Your task to perform on an android device: turn off location history Image 0: 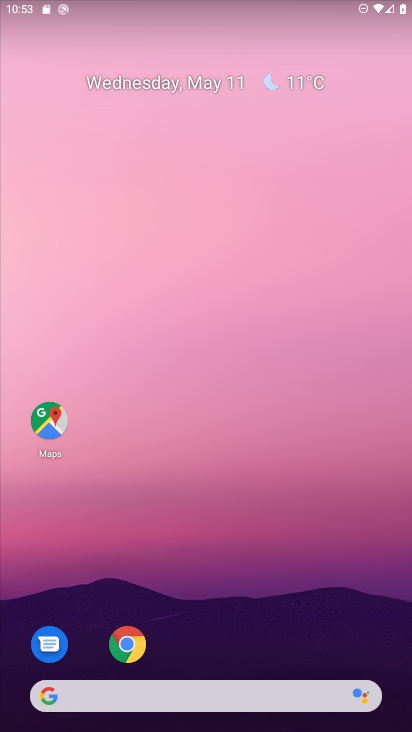
Step 0: click (51, 423)
Your task to perform on an android device: turn off location history Image 1: 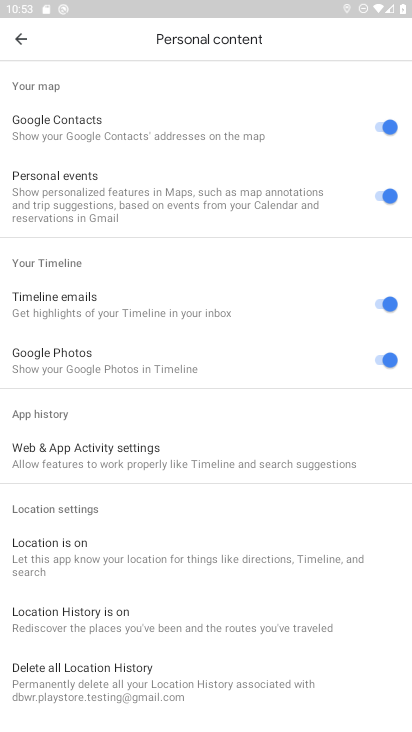
Step 1: click (84, 617)
Your task to perform on an android device: turn off location history Image 2: 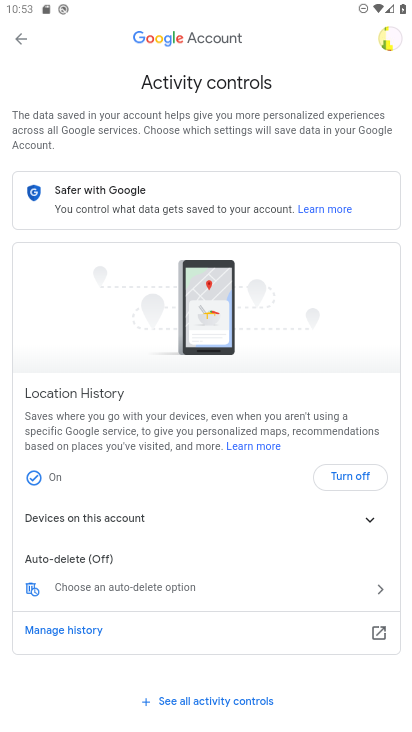
Step 2: click (361, 468)
Your task to perform on an android device: turn off location history Image 3: 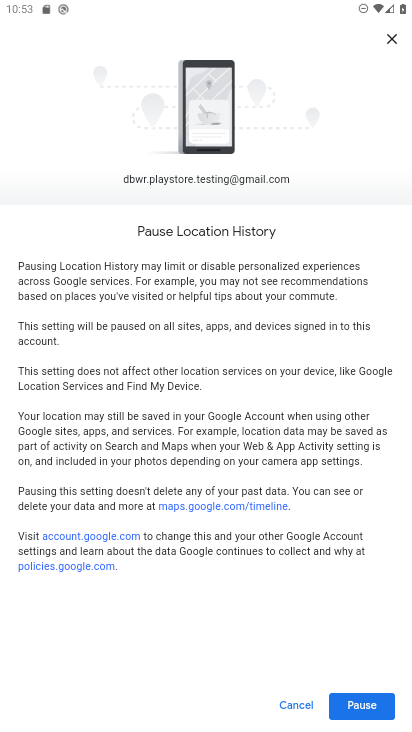
Step 3: click (362, 717)
Your task to perform on an android device: turn off location history Image 4: 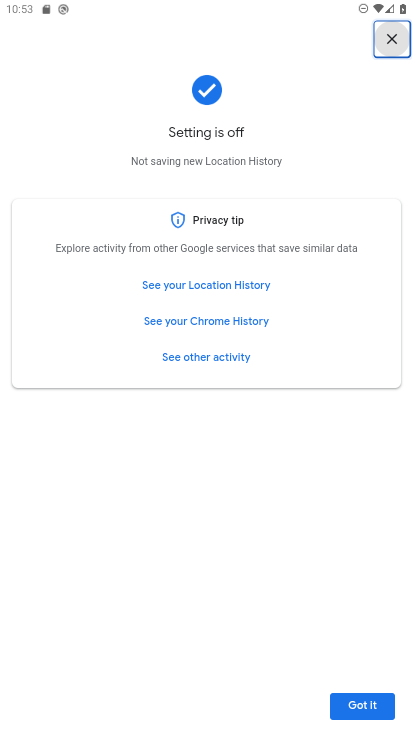
Step 4: click (360, 700)
Your task to perform on an android device: turn off location history Image 5: 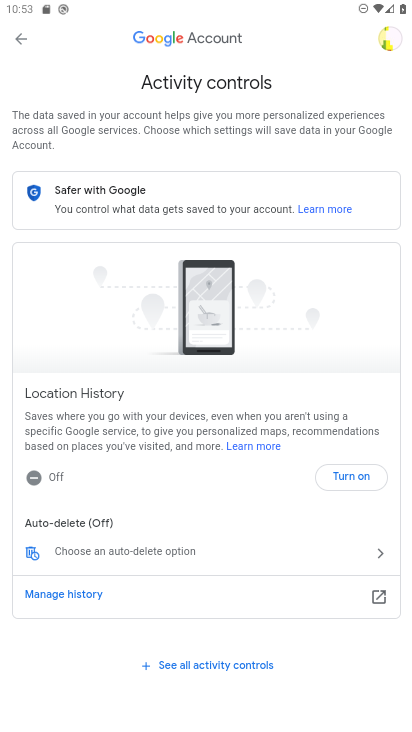
Step 5: task complete